Your task to perform on an android device: Go to wifi settings Image 0: 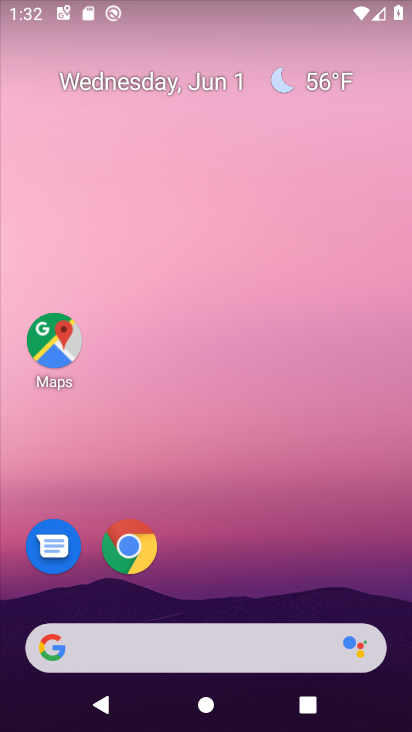
Step 0: drag from (215, 727) to (236, 156)
Your task to perform on an android device: Go to wifi settings Image 1: 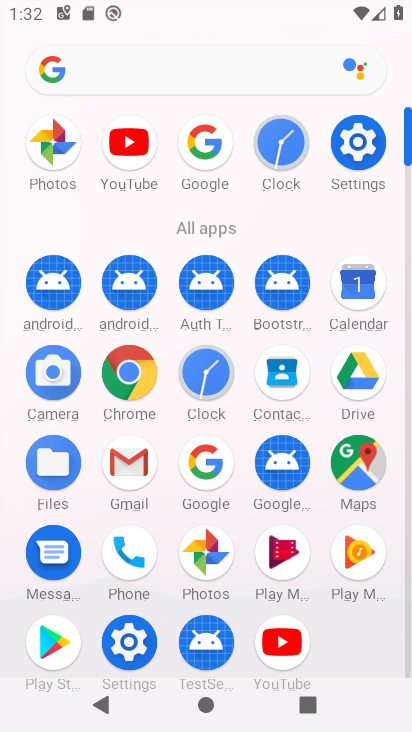
Step 1: click (351, 154)
Your task to perform on an android device: Go to wifi settings Image 2: 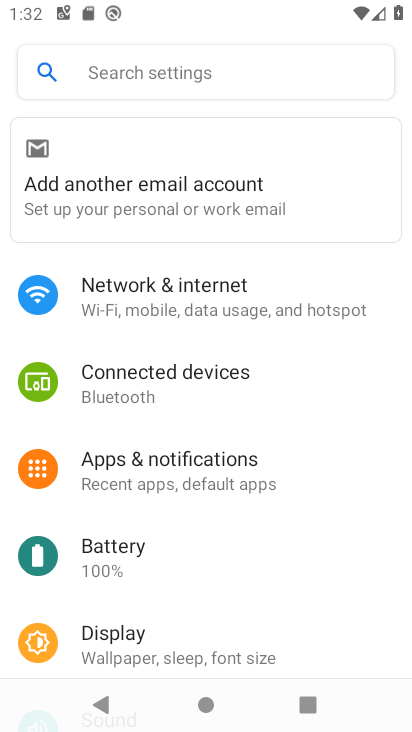
Step 2: click (169, 301)
Your task to perform on an android device: Go to wifi settings Image 3: 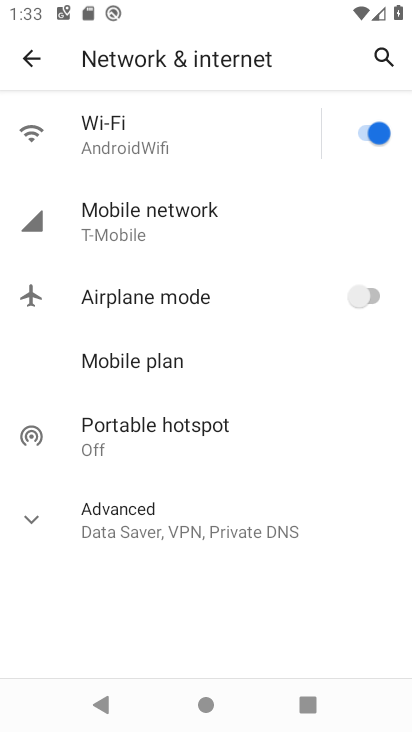
Step 3: click (118, 153)
Your task to perform on an android device: Go to wifi settings Image 4: 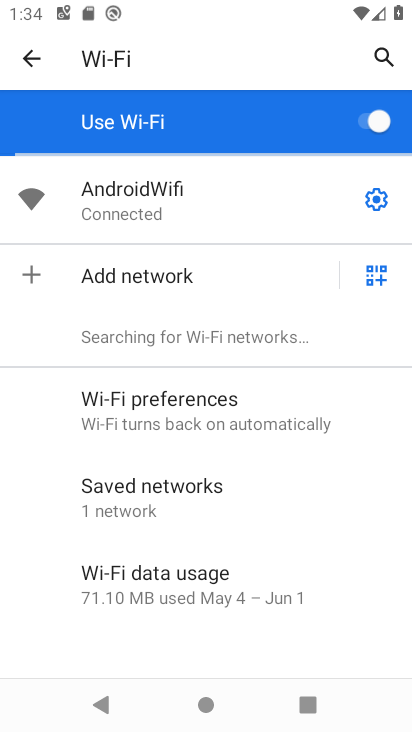
Step 4: task complete